Your task to perform on an android device: Open calendar and show me the third week of next month Image 0: 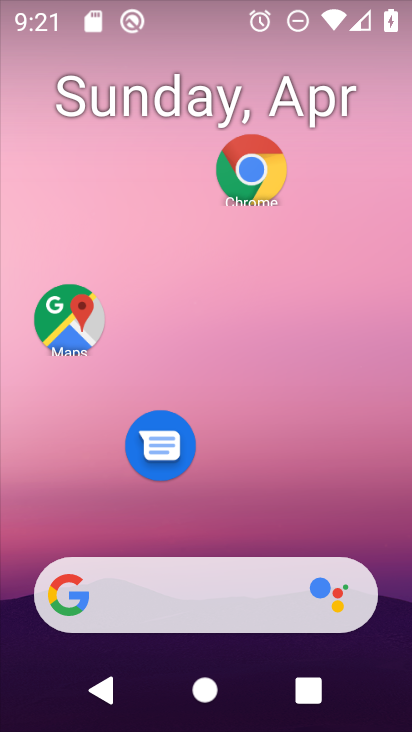
Step 0: press home button
Your task to perform on an android device: Open calendar and show me the third week of next month Image 1: 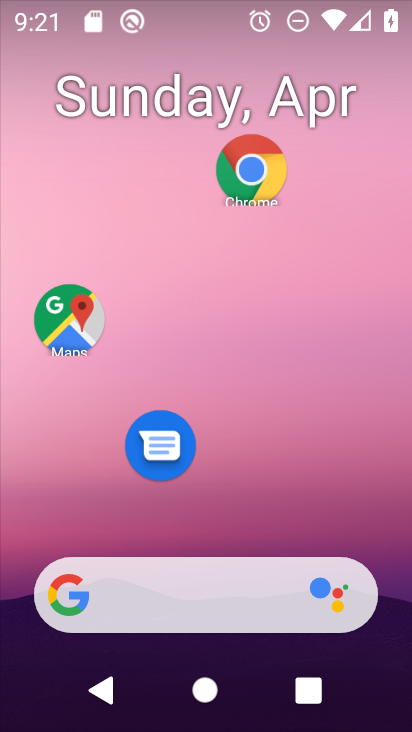
Step 1: drag from (248, 507) to (262, 62)
Your task to perform on an android device: Open calendar and show me the third week of next month Image 2: 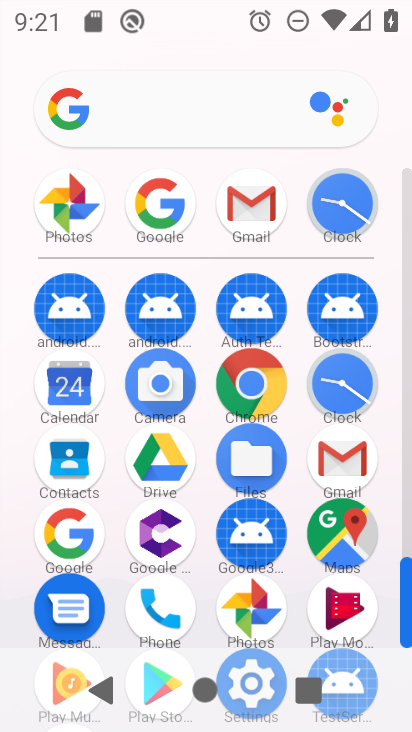
Step 2: click (69, 391)
Your task to perform on an android device: Open calendar and show me the third week of next month Image 3: 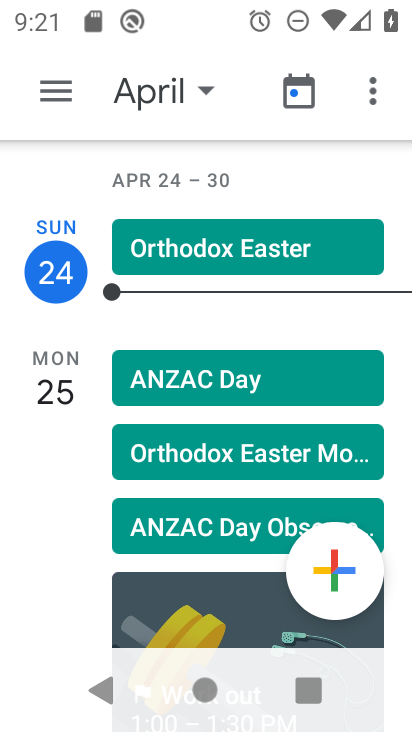
Step 3: click (194, 92)
Your task to perform on an android device: Open calendar and show me the third week of next month Image 4: 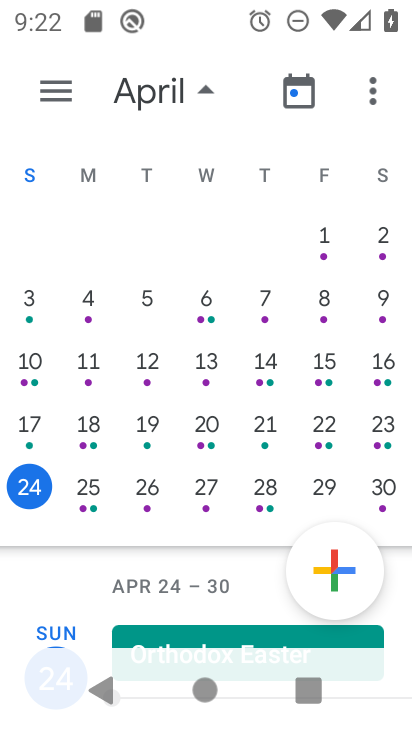
Step 4: drag from (379, 459) to (0, 455)
Your task to perform on an android device: Open calendar and show me the third week of next month Image 5: 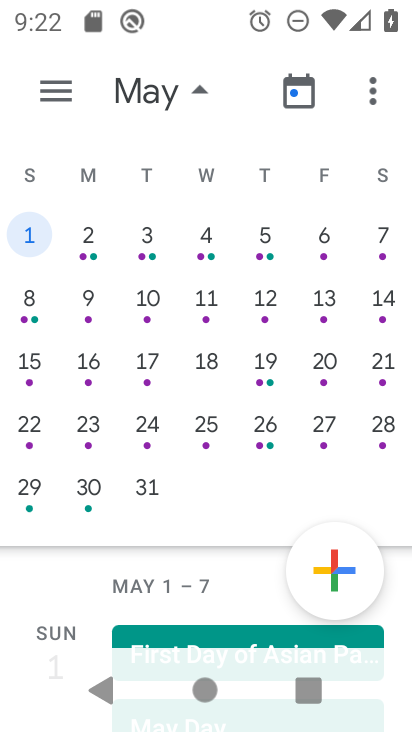
Step 5: click (152, 361)
Your task to perform on an android device: Open calendar and show me the third week of next month Image 6: 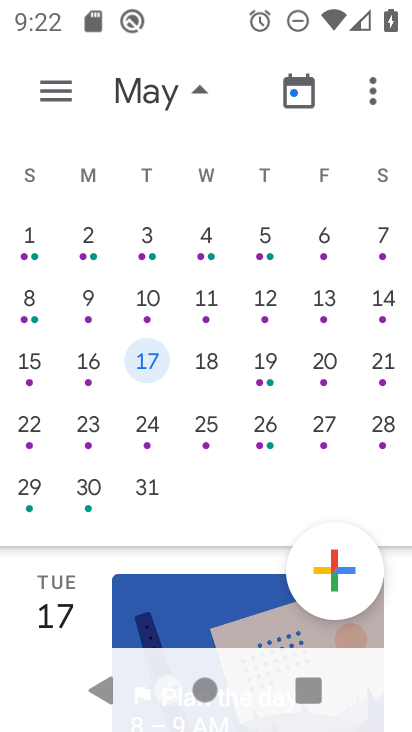
Step 6: task complete